Your task to perform on an android device: find photos in the google photos app Image 0: 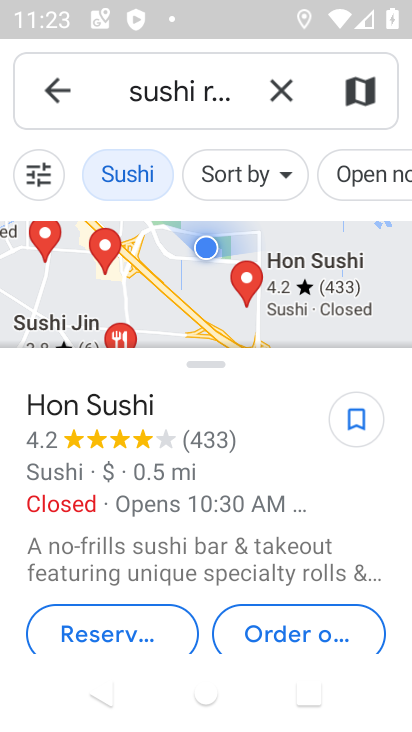
Step 0: press home button
Your task to perform on an android device: find photos in the google photos app Image 1: 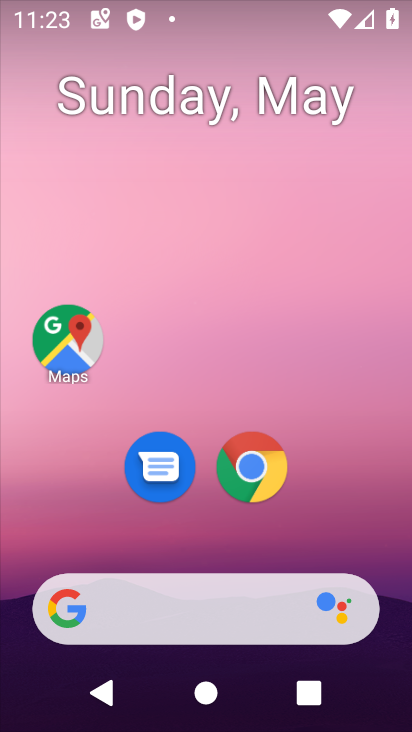
Step 1: drag from (375, 547) to (392, 7)
Your task to perform on an android device: find photos in the google photos app Image 2: 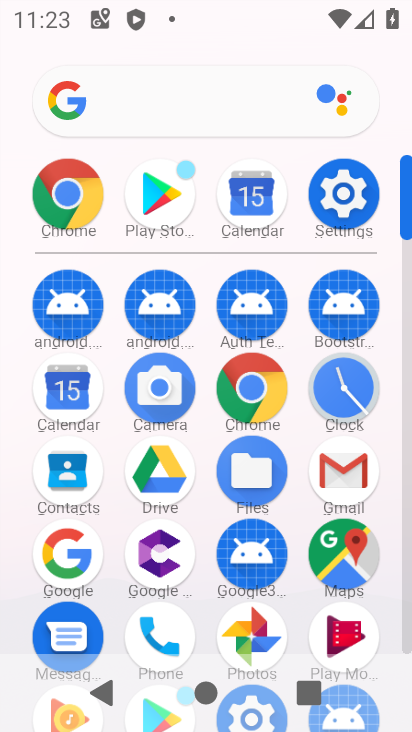
Step 2: click (245, 629)
Your task to perform on an android device: find photos in the google photos app Image 3: 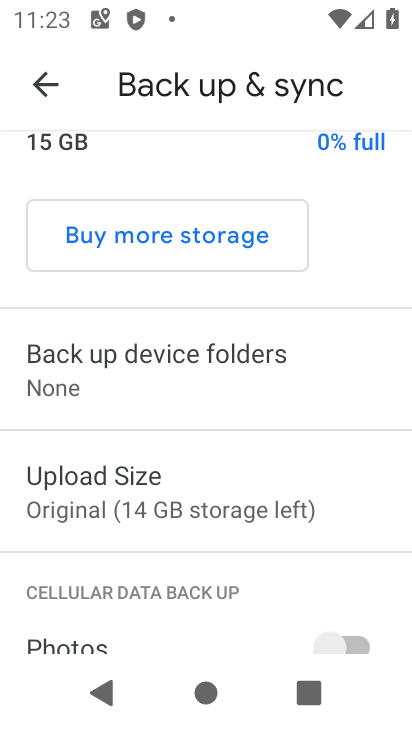
Step 3: click (29, 76)
Your task to perform on an android device: find photos in the google photos app Image 4: 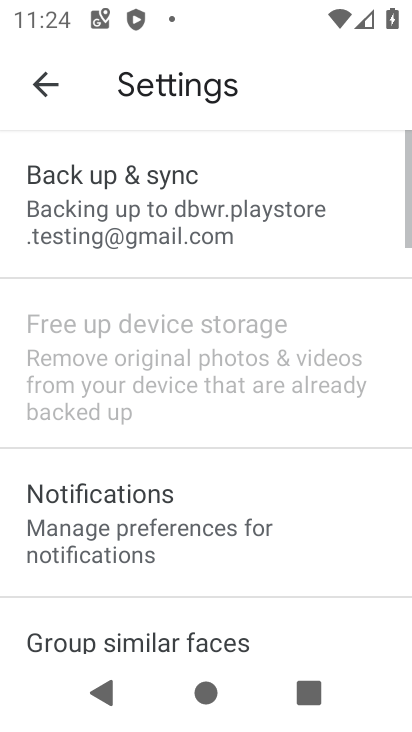
Step 4: click (30, 76)
Your task to perform on an android device: find photos in the google photos app Image 5: 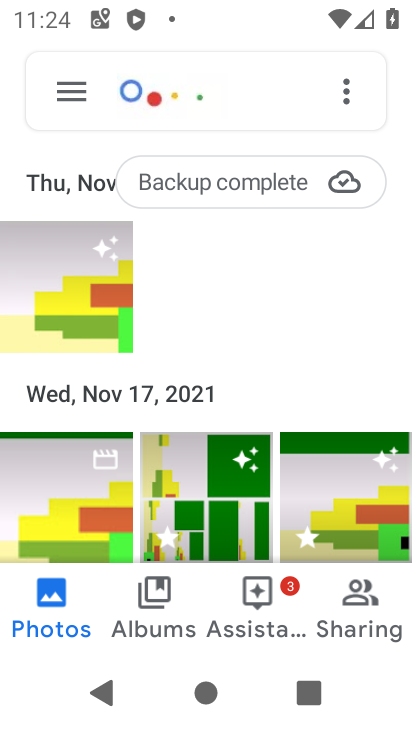
Step 5: click (37, 623)
Your task to perform on an android device: find photos in the google photos app Image 6: 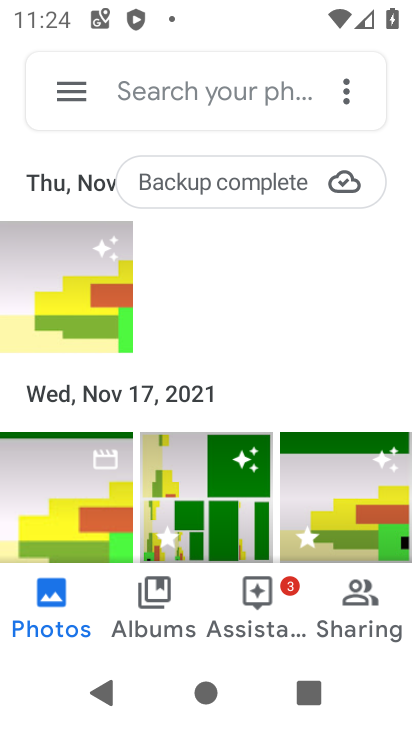
Step 6: task complete